Your task to perform on an android device: set default search engine in the chrome app Image 0: 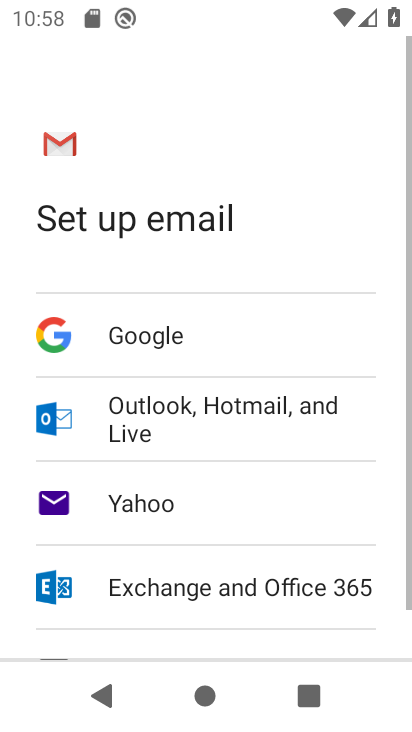
Step 0: press back button
Your task to perform on an android device: set default search engine in the chrome app Image 1: 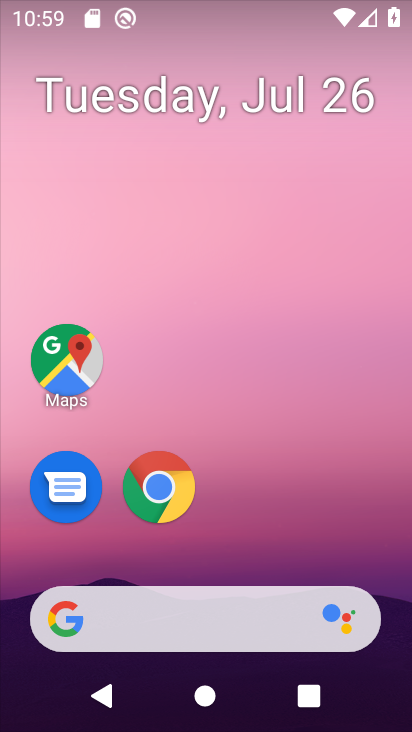
Step 1: click (157, 472)
Your task to perform on an android device: set default search engine in the chrome app Image 2: 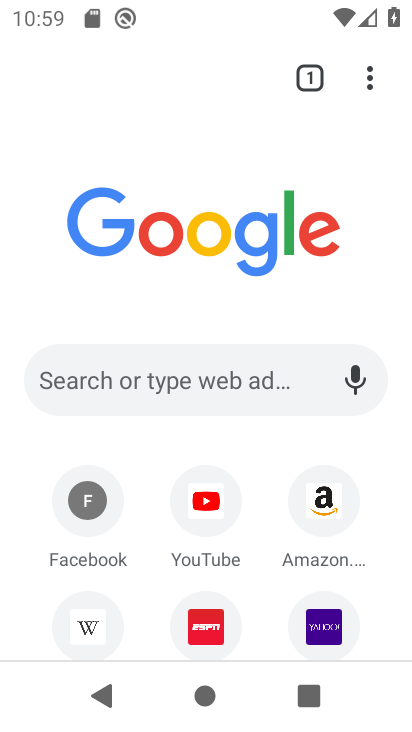
Step 2: drag from (366, 68) to (103, 543)
Your task to perform on an android device: set default search engine in the chrome app Image 3: 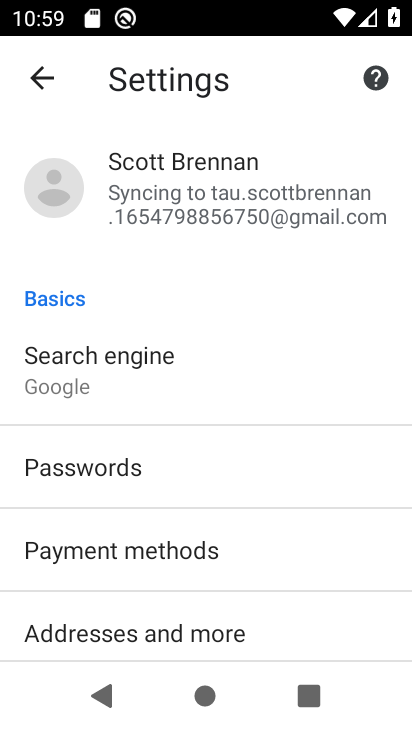
Step 3: click (76, 364)
Your task to perform on an android device: set default search engine in the chrome app Image 4: 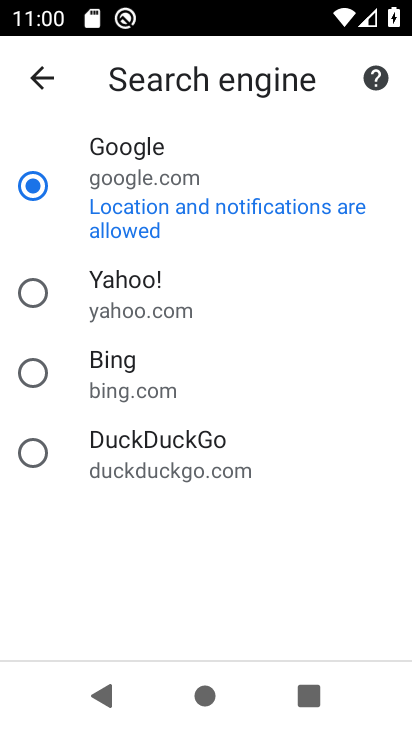
Step 4: click (127, 290)
Your task to perform on an android device: set default search engine in the chrome app Image 5: 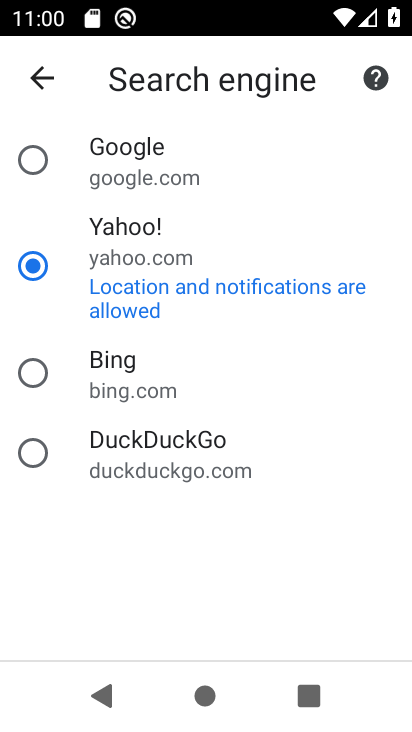
Step 5: task complete